Your task to perform on an android device: Open the web browser Image 0: 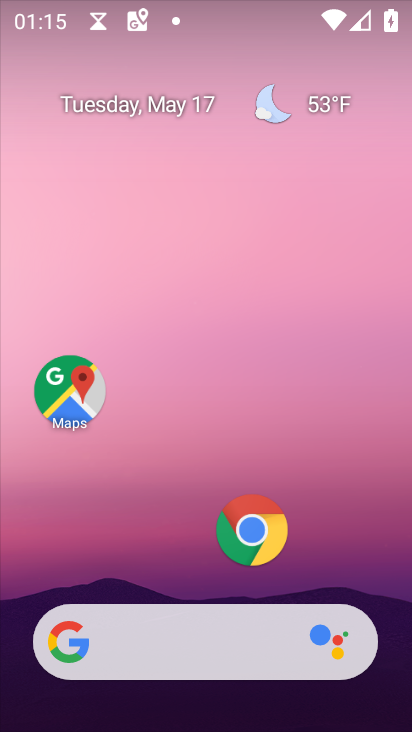
Step 0: click (275, 537)
Your task to perform on an android device: Open the web browser Image 1: 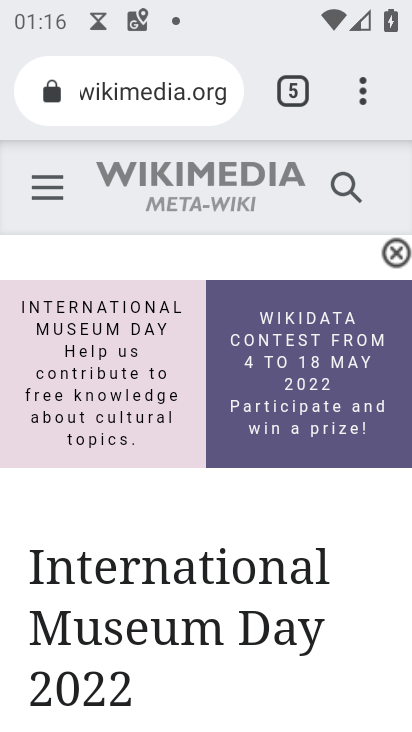
Step 1: task complete